Your task to perform on an android device: turn on the 12-hour format for clock Image 0: 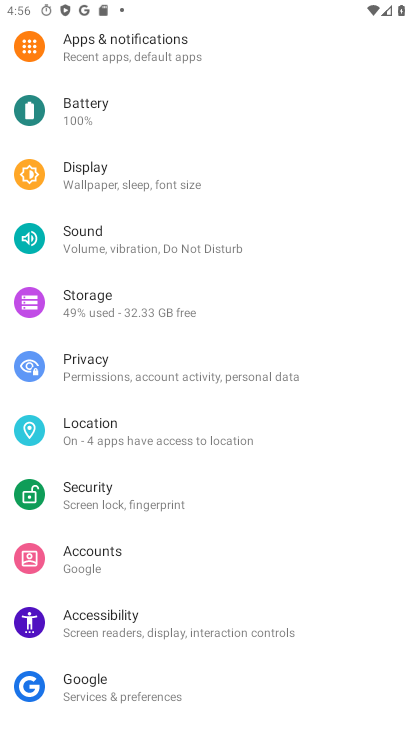
Step 0: press home button
Your task to perform on an android device: turn on the 12-hour format for clock Image 1: 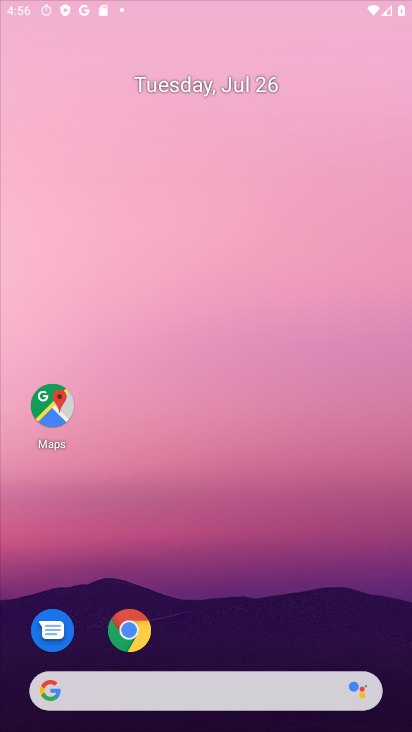
Step 1: drag from (252, 580) to (327, 68)
Your task to perform on an android device: turn on the 12-hour format for clock Image 2: 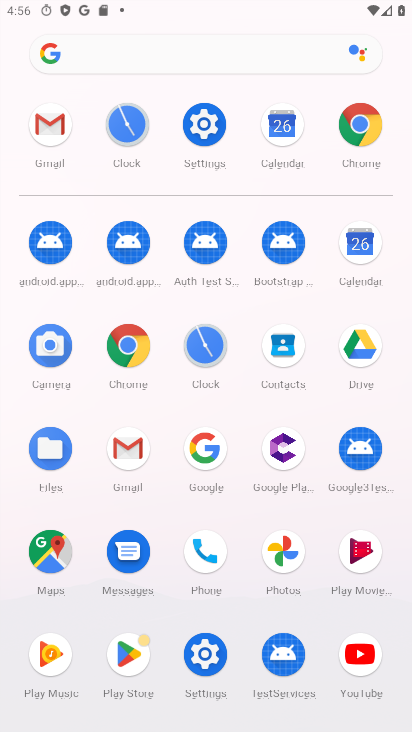
Step 2: click (199, 343)
Your task to perform on an android device: turn on the 12-hour format for clock Image 3: 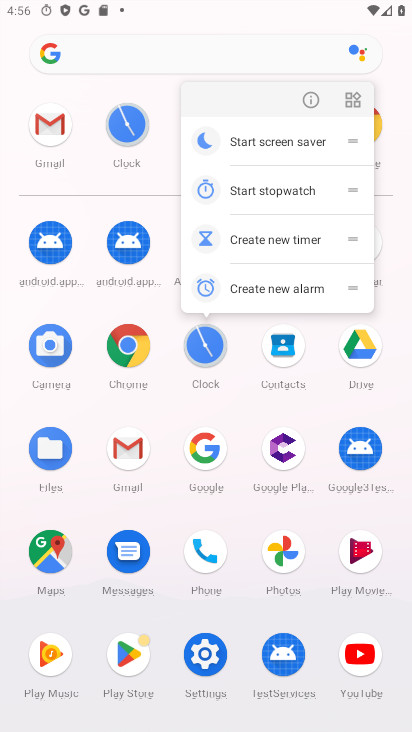
Step 3: click (217, 345)
Your task to perform on an android device: turn on the 12-hour format for clock Image 4: 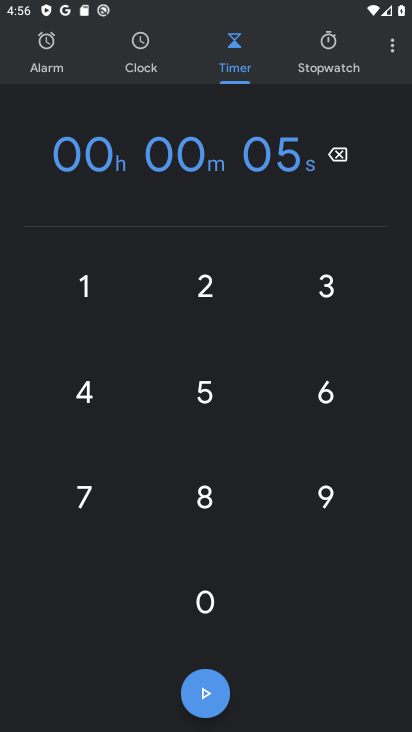
Step 4: click (390, 45)
Your task to perform on an android device: turn on the 12-hour format for clock Image 5: 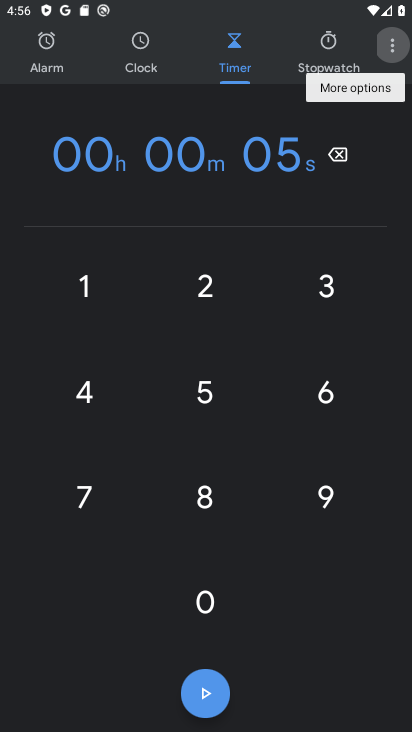
Step 5: click (390, 45)
Your task to perform on an android device: turn on the 12-hour format for clock Image 6: 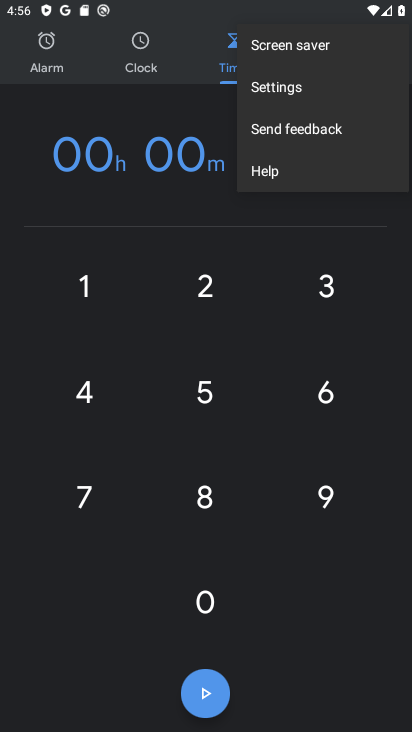
Step 6: click (287, 93)
Your task to perform on an android device: turn on the 12-hour format for clock Image 7: 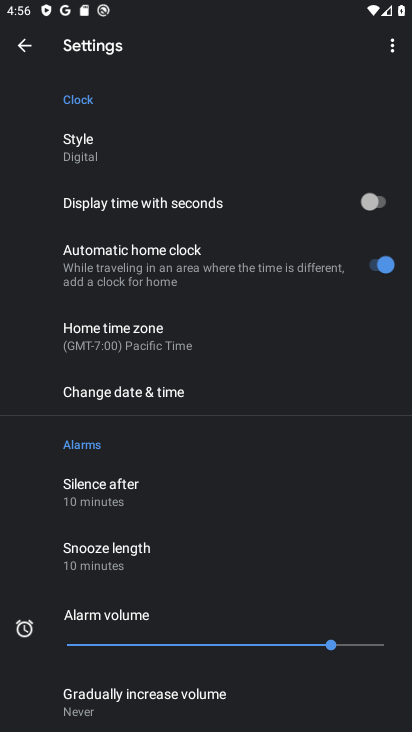
Step 7: click (178, 399)
Your task to perform on an android device: turn on the 12-hour format for clock Image 8: 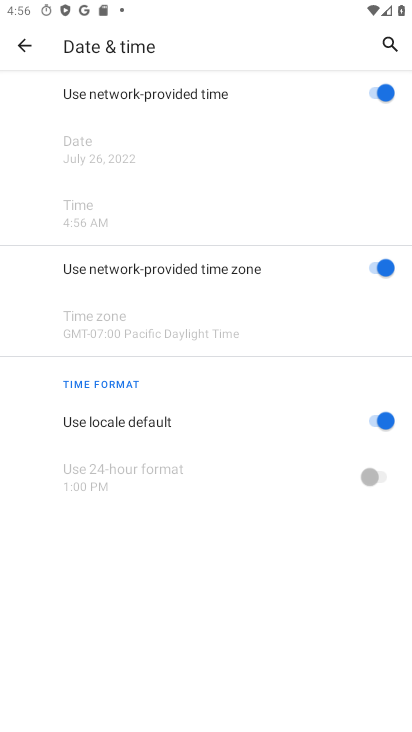
Step 8: task complete